Your task to perform on an android device: move a message to another label in the gmail app Image 0: 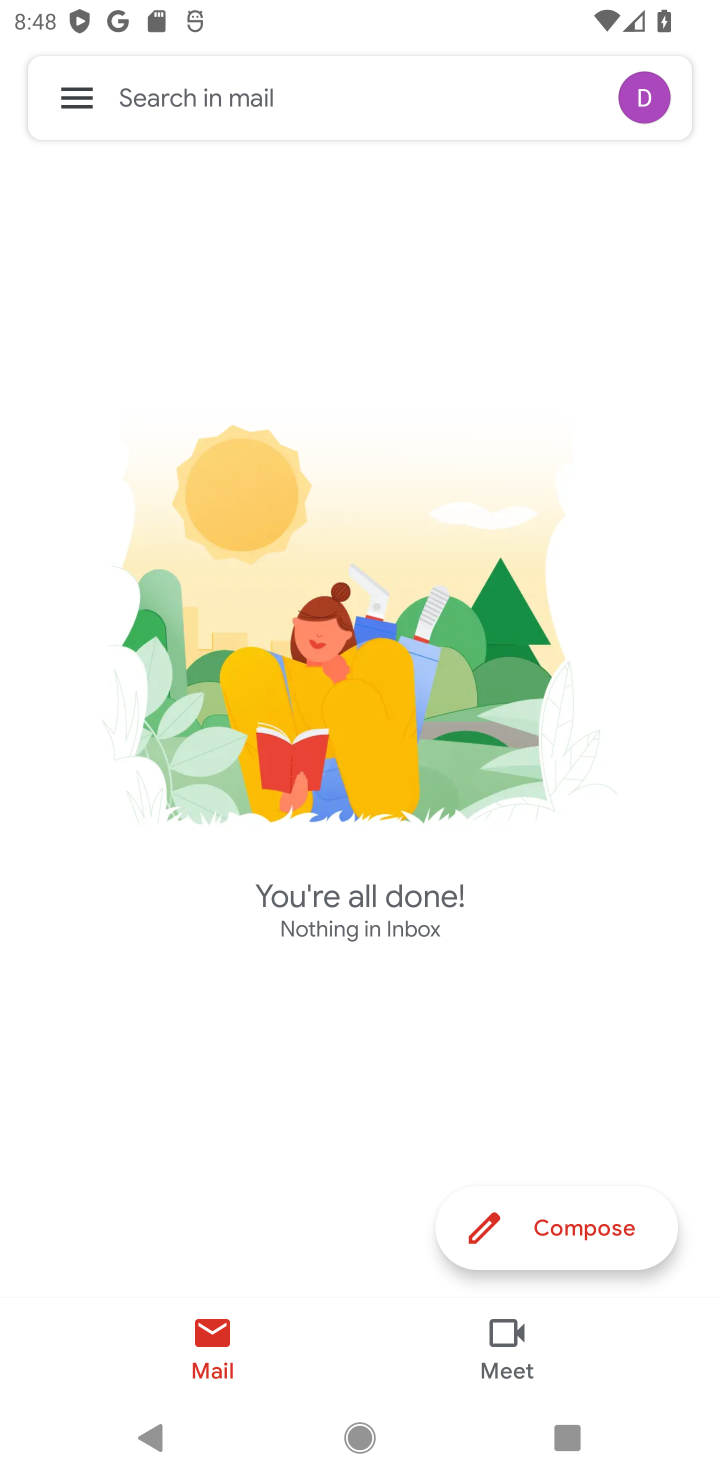
Step 0: task impossible